Your task to perform on an android device: toggle pop-ups in chrome Image 0: 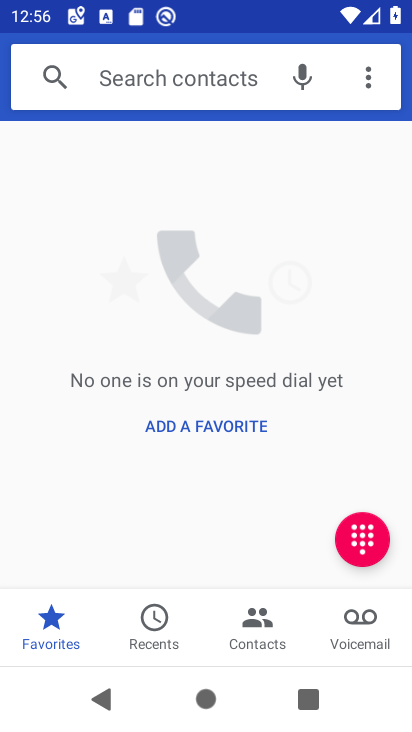
Step 0: press home button
Your task to perform on an android device: toggle pop-ups in chrome Image 1: 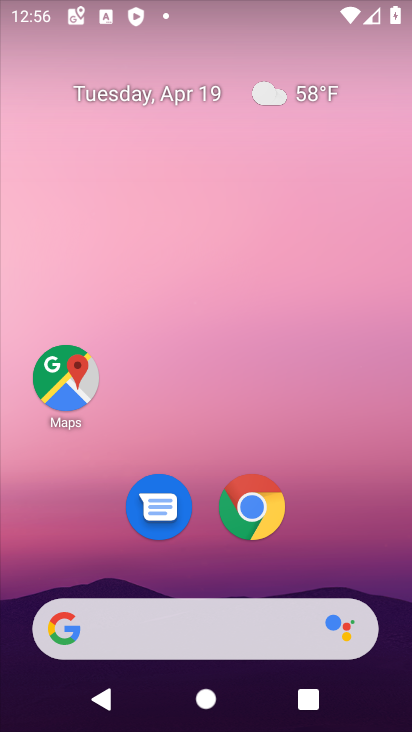
Step 1: click (246, 526)
Your task to perform on an android device: toggle pop-ups in chrome Image 2: 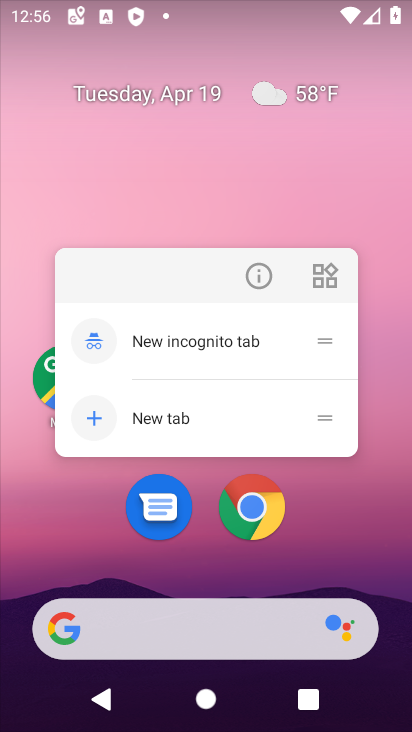
Step 2: click (252, 511)
Your task to perform on an android device: toggle pop-ups in chrome Image 3: 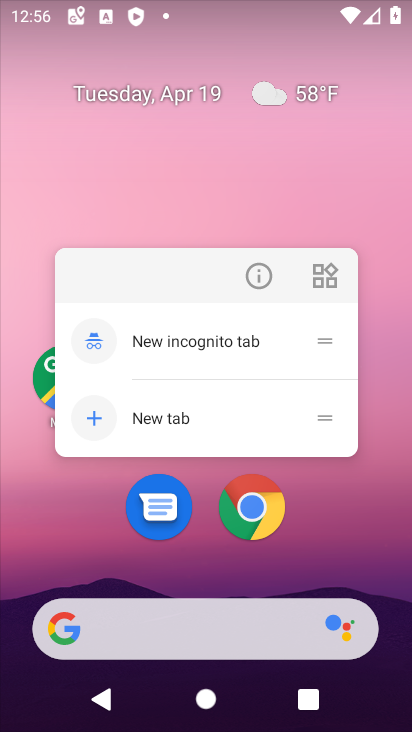
Step 3: click (252, 511)
Your task to perform on an android device: toggle pop-ups in chrome Image 4: 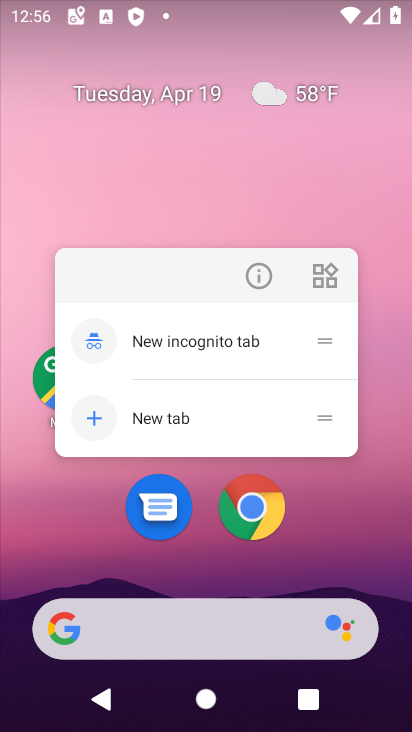
Step 4: click (255, 510)
Your task to perform on an android device: toggle pop-ups in chrome Image 5: 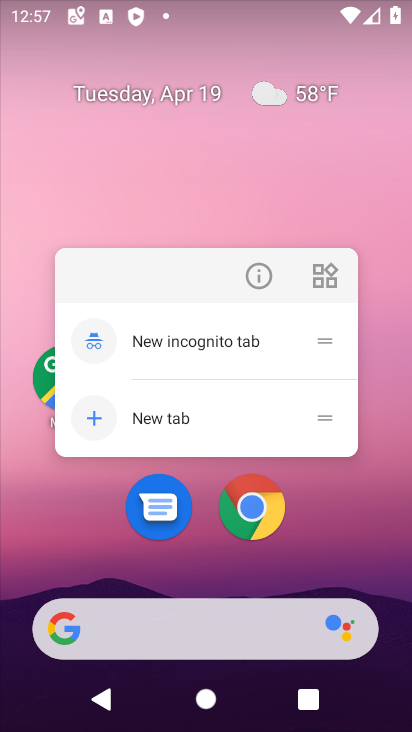
Step 5: click (259, 525)
Your task to perform on an android device: toggle pop-ups in chrome Image 6: 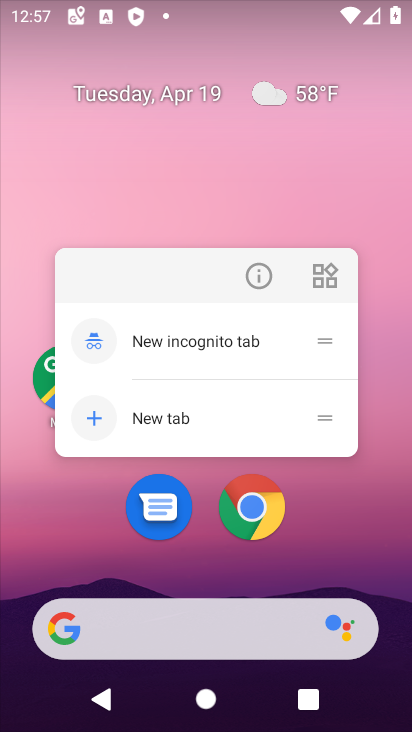
Step 6: click (261, 517)
Your task to perform on an android device: toggle pop-ups in chrome Image 7: 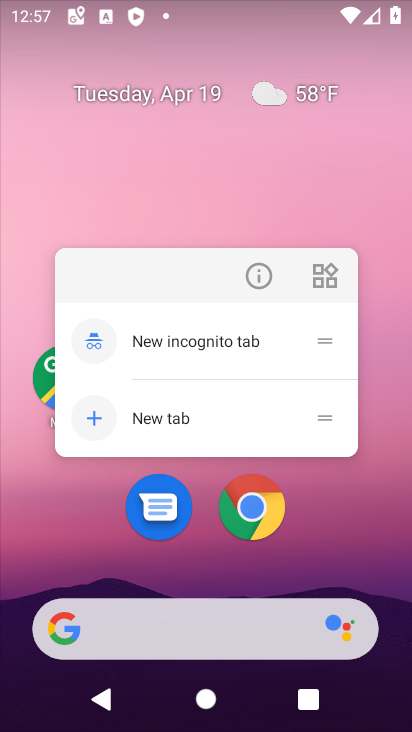
Step 7: click (258, 516)
Your task to perform on an android device: toggle pop-ups in chrome Image 8: 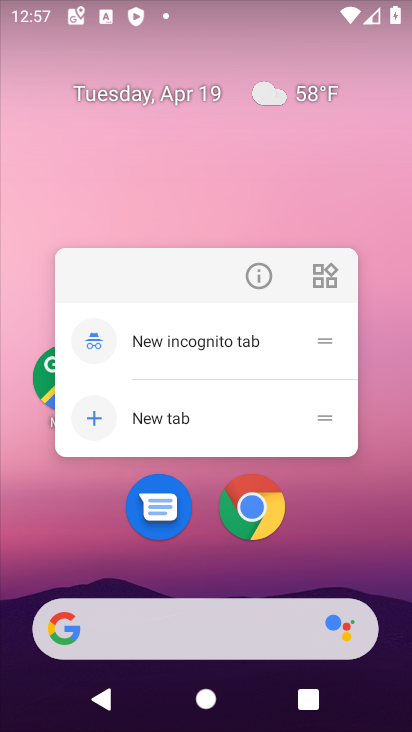
Step 8: click (257, 516)
Your task to perform on an android device: toggle pop-ups in chrome Image 9: 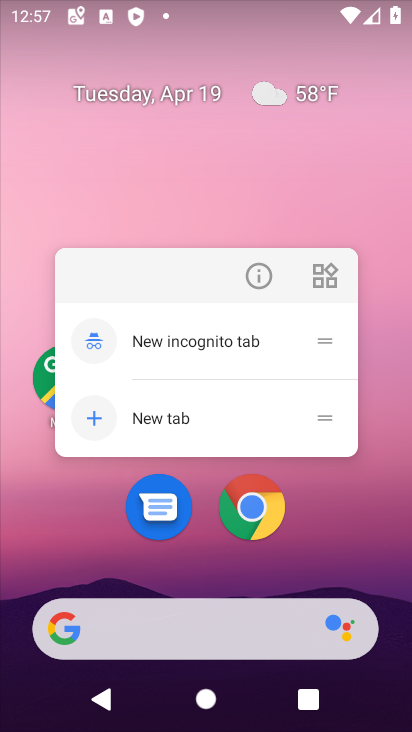
Step 9: click (244, 507)
Your task to perform on an android device: toggle pop-ups in chrome Image 10: 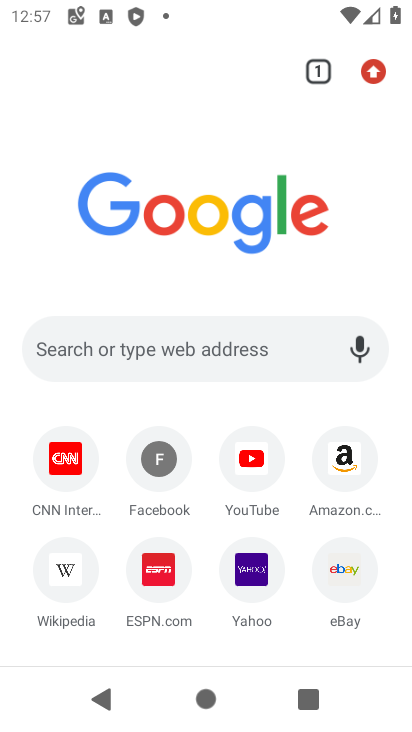
Step 10: click (375, 67)
Your task to perform on an android device: toggle pop-ups in chrome Image 11: 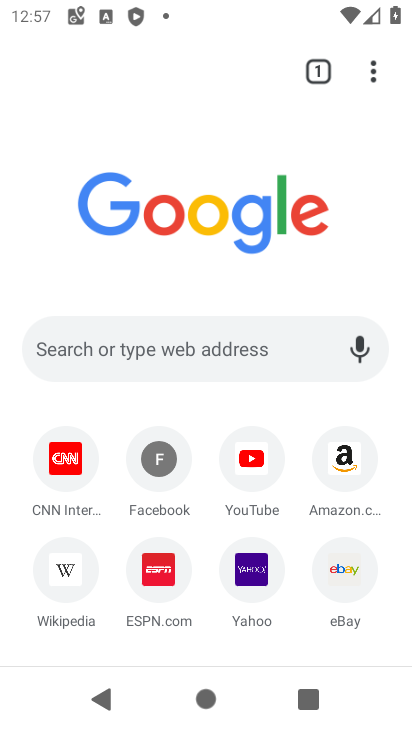
Step 11: click (373, 69)
Your task to perform on an android device: toggle pop-ups in chrome Image 12: 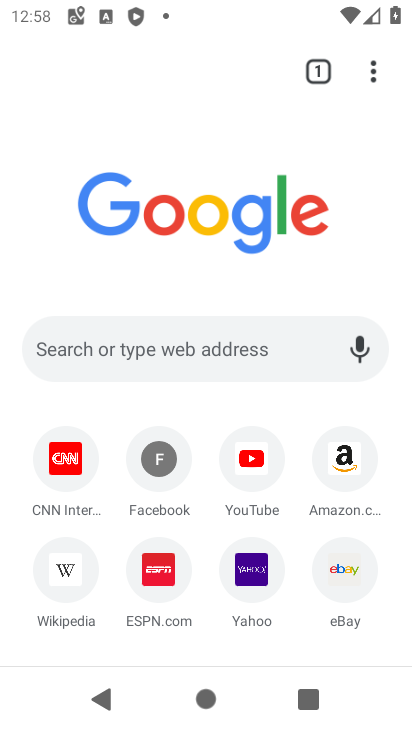
Step 12: click (375, 70)
Your task to perform on an android device: toggle pop-ups in chrome Image 13: 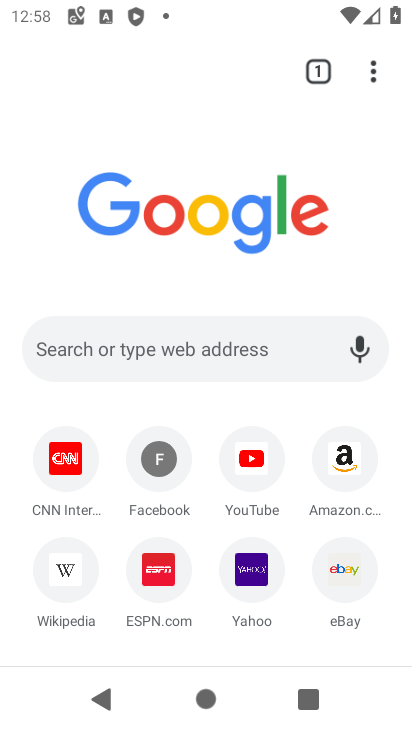
Step 13: click (371, 61)
Your task to perform on an android device: toggle pop-ups in chrome Image 14: 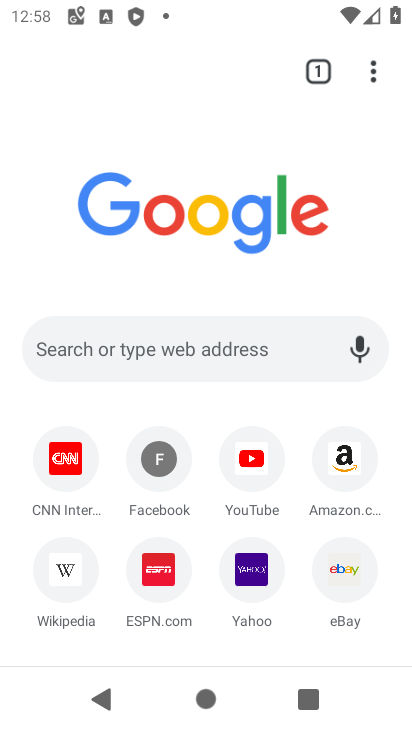
Step 14: click (370, 71)
Your task to perform on an android device: toggle pop-ups in chrome Image 15: 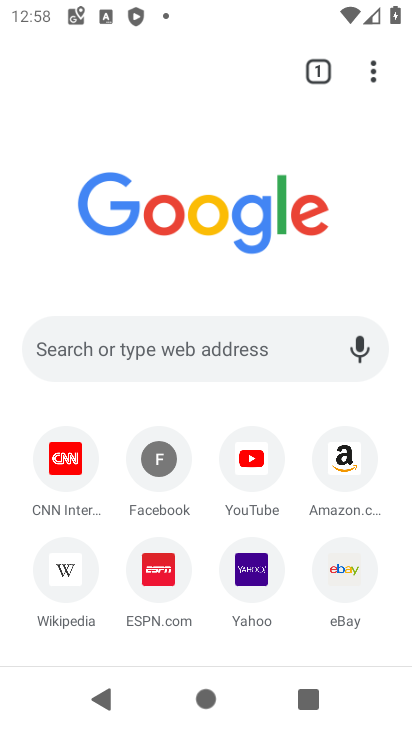
Step 15: click (370, 66)
Your task to perform on an android device: toggle pop-ups in chrome Image 16: 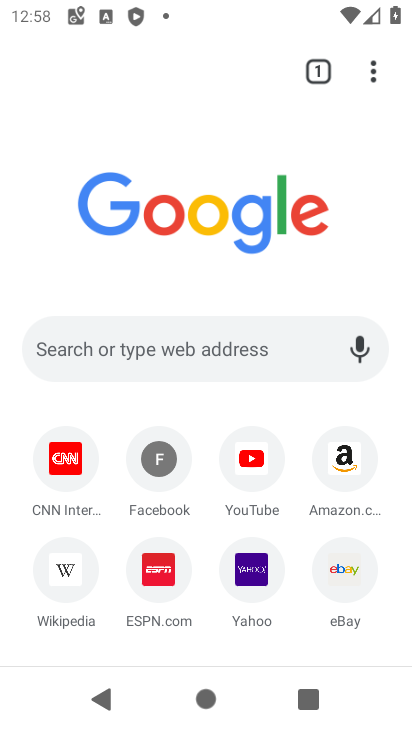
Step 16: click (370, 66)
Your task to perform on an android device: toggle pop-ups in chrome Image 17: 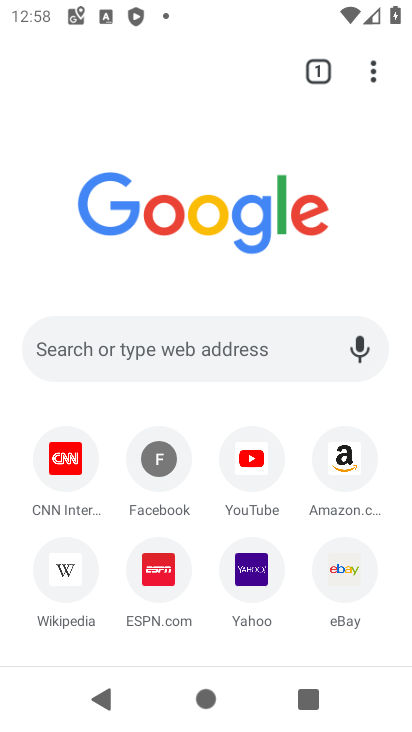
Step 17: click (373, 70)
Your task to perform on an android device: toggle pop-ups in chrome Image 18: 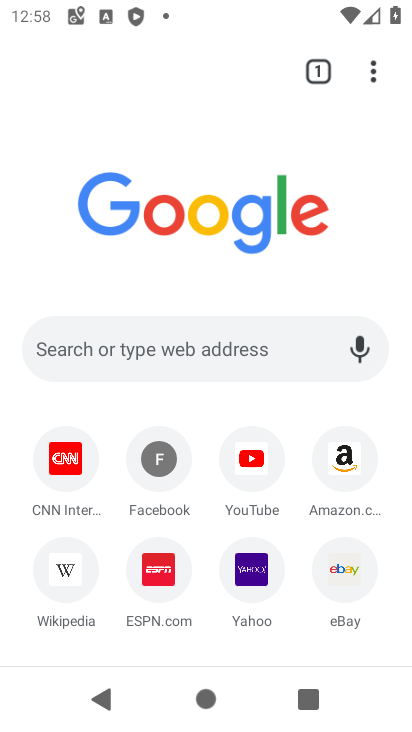
Step 18: click (373, 70)
Your task to perform on an android device: toggle pop-ups in chrome Image 19: 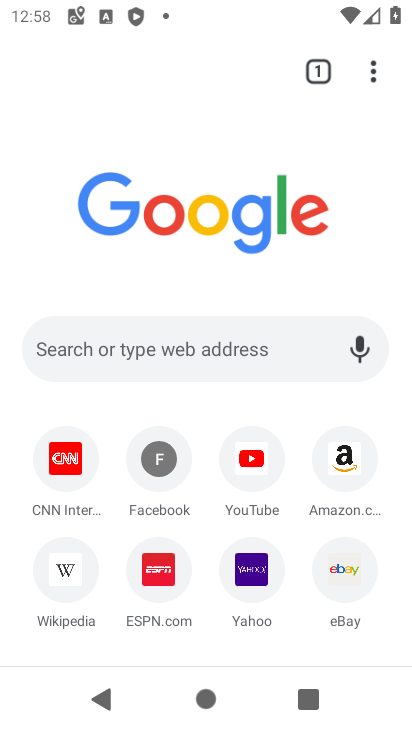
Step 19: click (373, 68)
Your task to perform on an android device: toggle pop-ups in chrome Image 20: 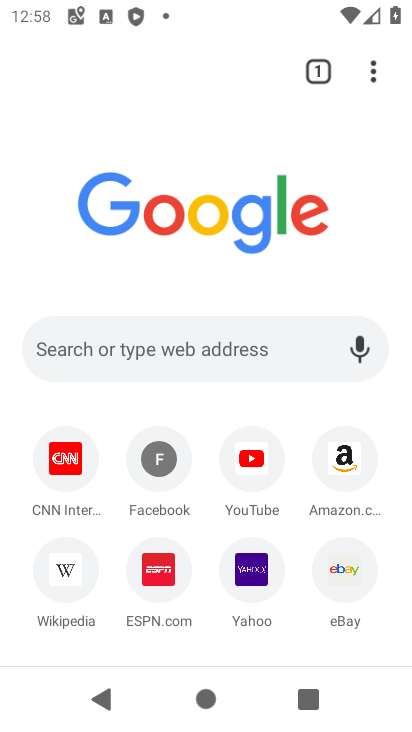
Step 20: click (373, 68)
Your task to perform on an android device: toggle pop-ups in chrome Image 21: 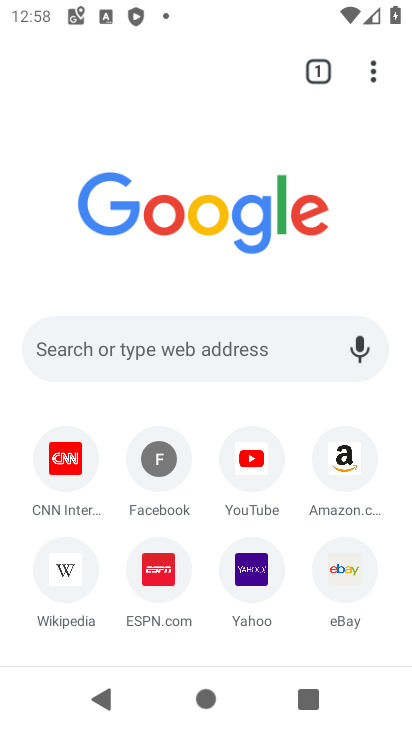
Step 21: click (373, 68)
Your task to perform on an android device: toggle pop-ups in chrome Image 22: 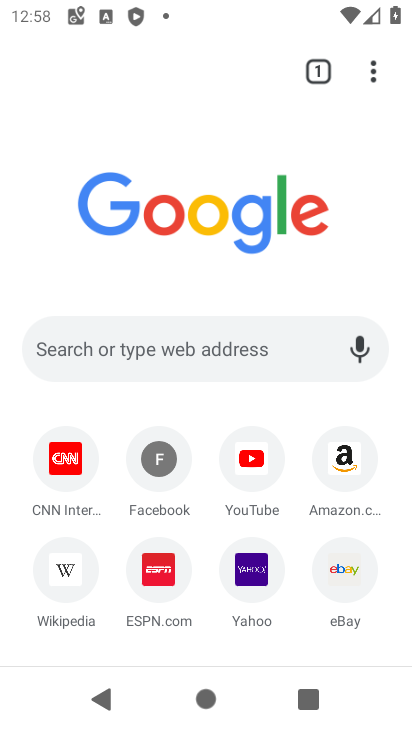
Step 22: click (367, 70)
Your task to perform on an android device: toggle pop-ups in chrome Image 23: 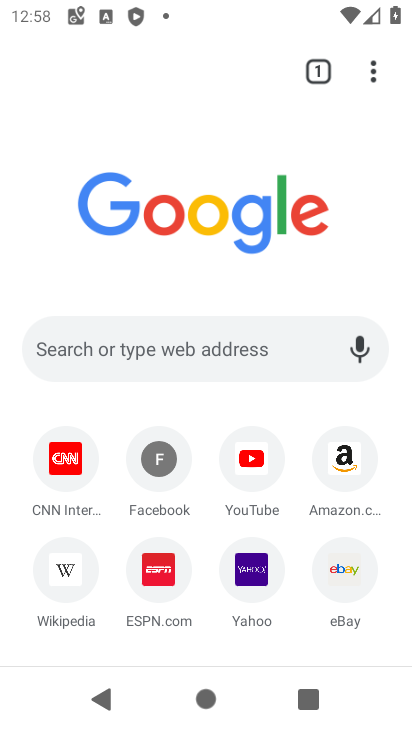
Step 23: click (367, 70)
Your task to perform on an android device: toggle pop-ups in chrome Image 24: 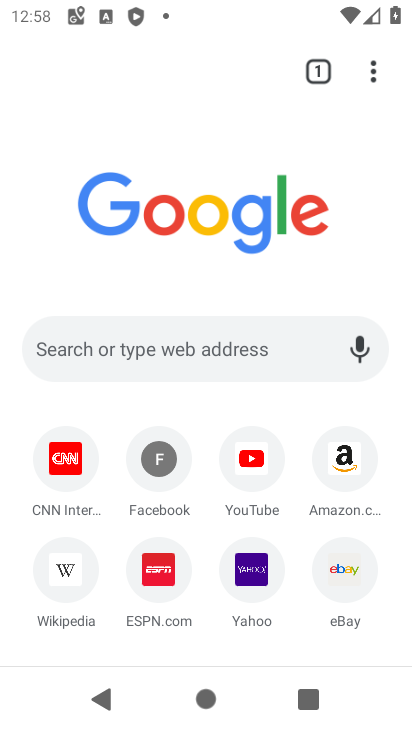
Step 24: click (367, 70)
Your task to perform on an android device: toggle pop-ups in chrome Image 25: 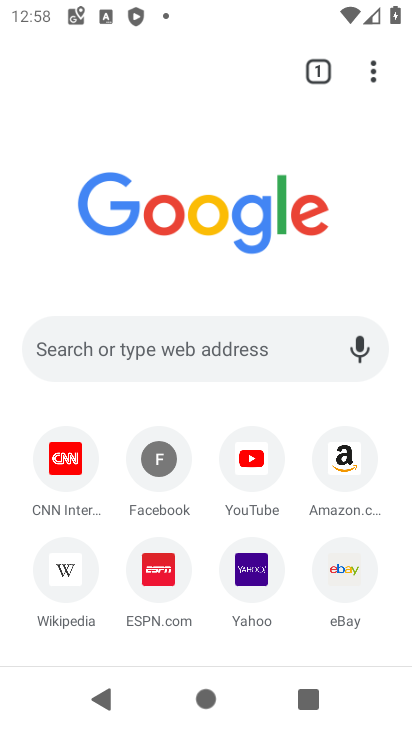
Step 25: click (367, 70)
Your task to perform on an android device: toggle pop-ups in chrome Image 26: 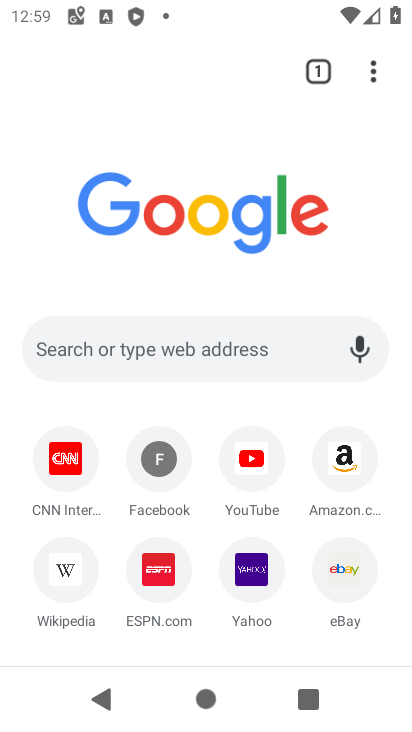
Step 26: click (373, 63)
Your task to perform on an android device: toggle pop-ups in chrome Image 27: 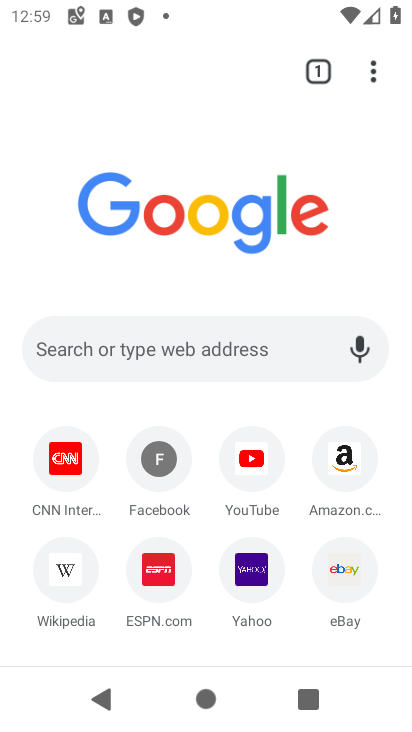
Step 27: click (375, 69)
Your task to perform on an android device: toggle pop-ups in chrome Image 28: 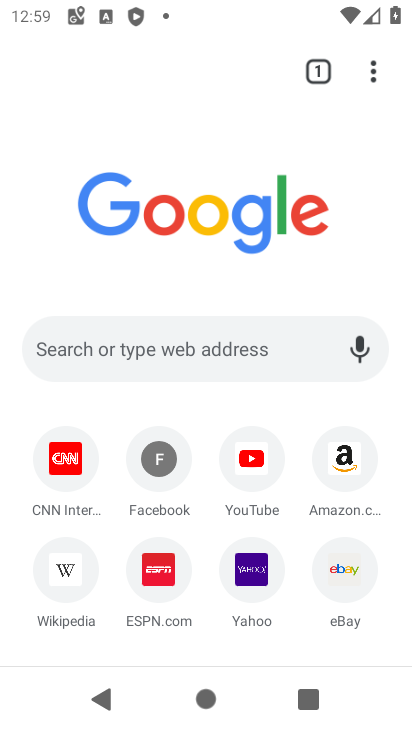
Step 28: drag from (376, 71) to (148, 492)
Your task to perform on an android device: toggle pop-ups in chrome Image 29: 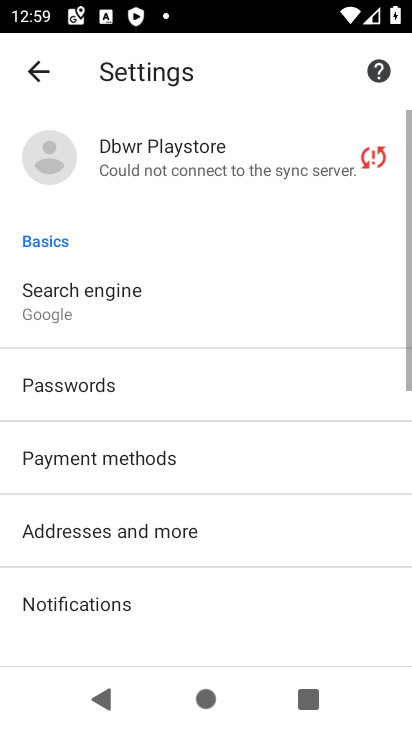
Step 29: drag from (216, 559) to (211, 218)
Your task to perform on an android device: toggle pop-ups in chrome Image 30: 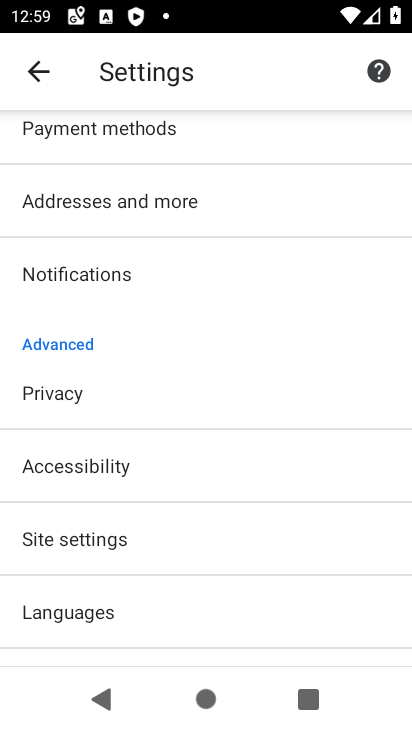
Step 30: click (137, 550)
Your task to perform on an android device: toggle pop-ups in chrome Image 31: 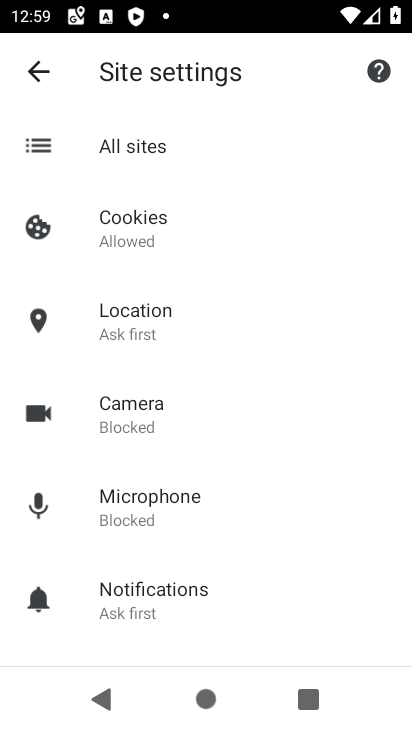
Step 31: drag from (263, 537) to (258, 207)
Your task to perform on an android device: toggle pop-ups in chrome Image 32: 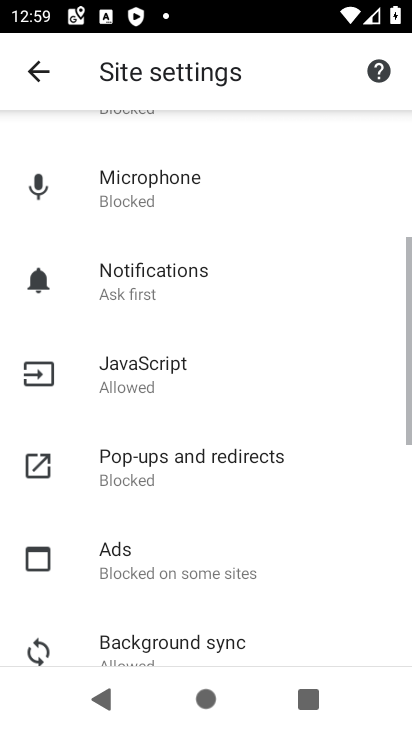
Step 32: click (227, 462)
Your task to perform on an android device: toggle pop-ups in chrome Image 33: 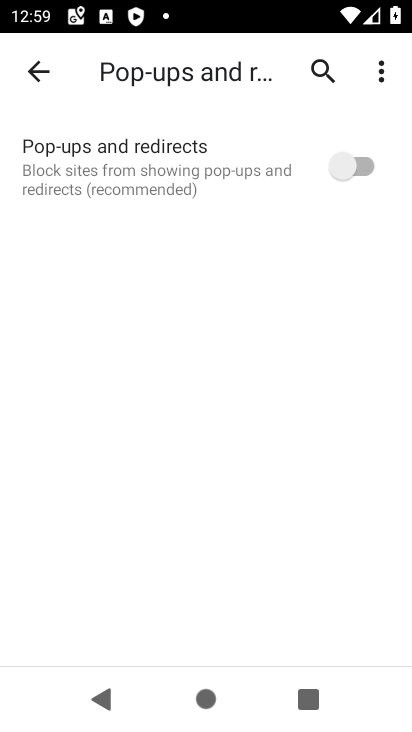
Step 33: click (366, 165)
Your task to perform on an android device: toggle pop-ups in chrome Image 34: 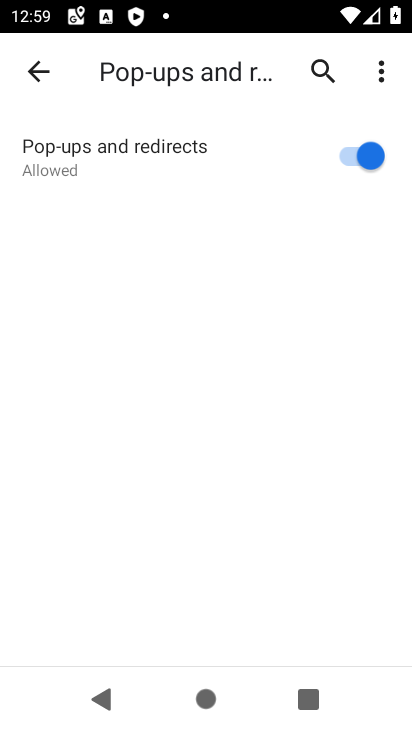
Step 34: task complete